Your task to perform on an android device: Open Youtube and go to "Your channel" Image 0: 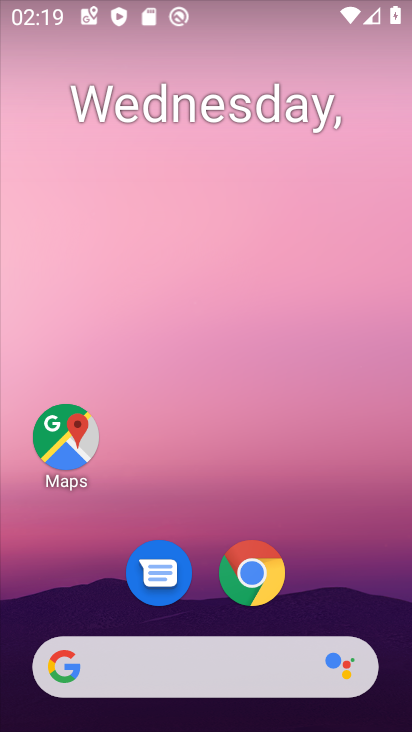
Step 0: drag from (347, 550) to (279, 14)
Your task to perform on an android device: Open Youtube and go to "Your channel" Image 1: 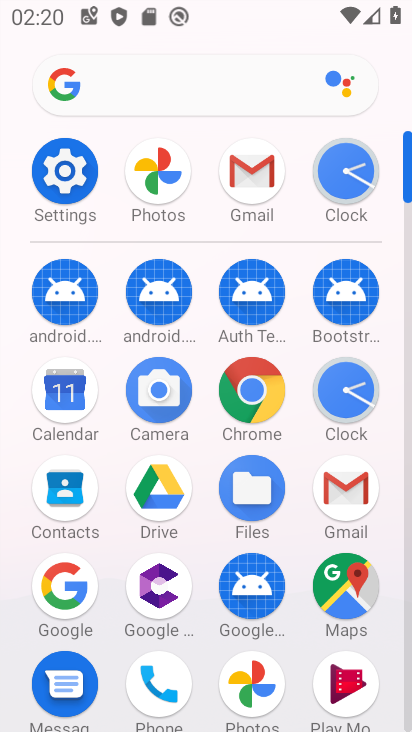
Step 1: drag from (208, 460) to (208, 97)
Your task to perform on an android device: Open Youtube and go to "Your channel" Image 2: 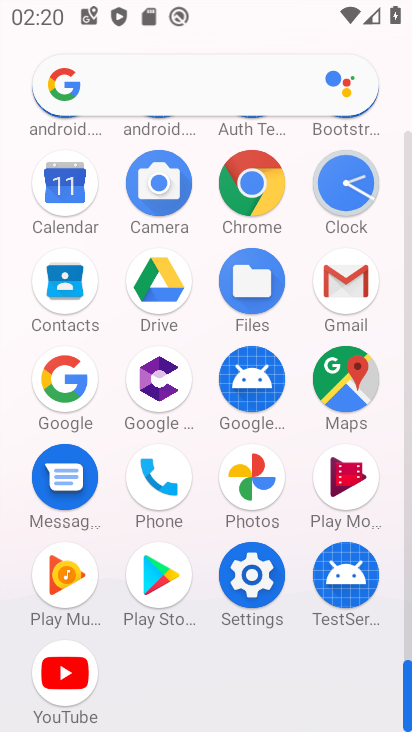
Step 2: click (65, 670)
Your task to perform on an android device: Open Youtube and go to "Your channel" Image 3: 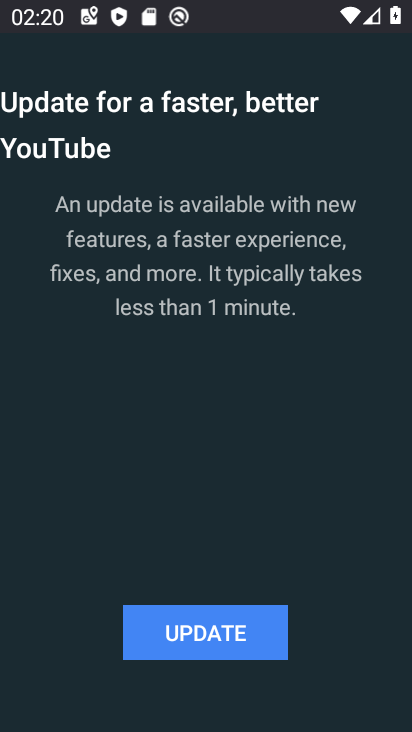
Step 3: click (193, 630)
Your task to perform on an android device: Open Youtube and go to "Your channel" Image 4: 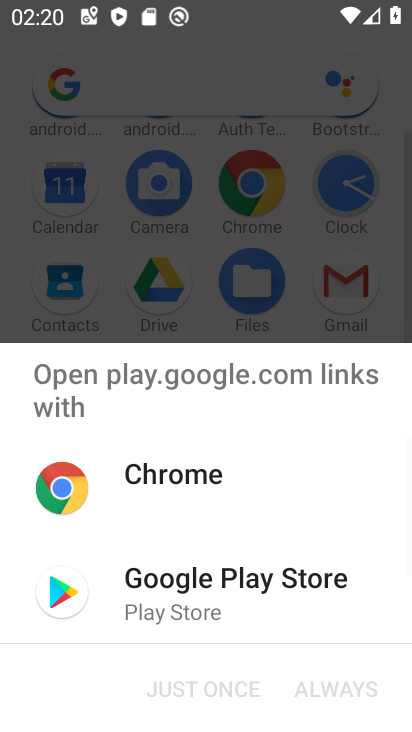
Step 4: click (189, 577)
Your task to perform on an android device: Open Youtube and go to "Your channel" Image 5: 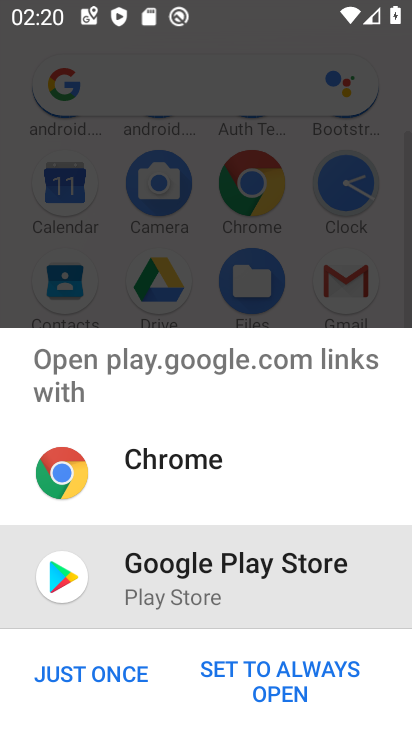
Step 5: click (106, 666)
Your task to perform on an android device: Open Youtube and go to "Your channel" Image 6: 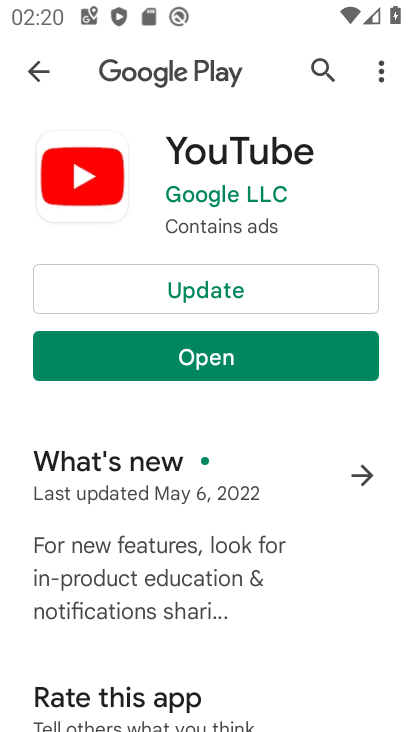
Step 6: click (253, 286)
Your task to perform on an android device: Open Youtube and go to "Your channel" Image 7: 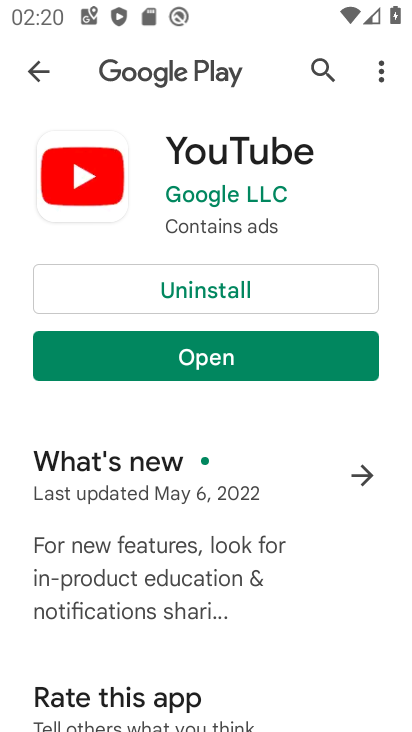
Step 7: click (241, 354)
Your task to perform on an android device: Open Youtube and go to "Your channel" Image 8: 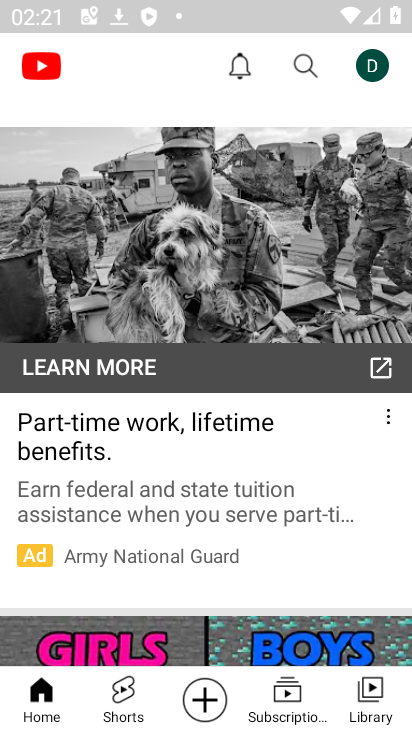
Step 8: click (375, 67)
Your task to perform on an android device: Open Youtube and go to "Your channel" Image 9: 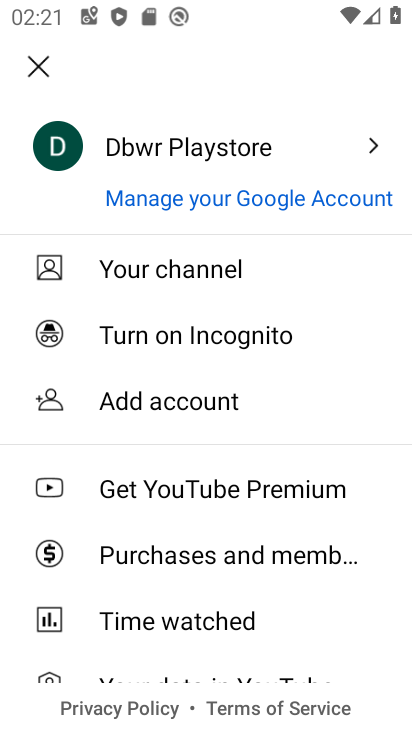
Step 9: click (186, 268)
Your task to perform on an android device: Open Youtube and go to "Your channel" Image 10: 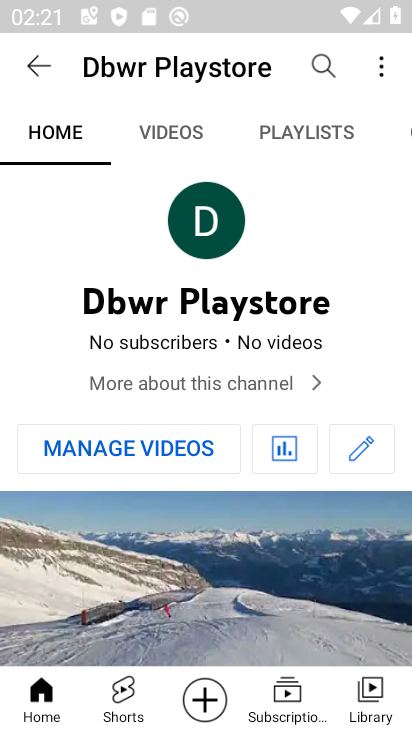
Step 10: task complete